Your task to perform on an android device: turn on bluetooth scan Image 0: 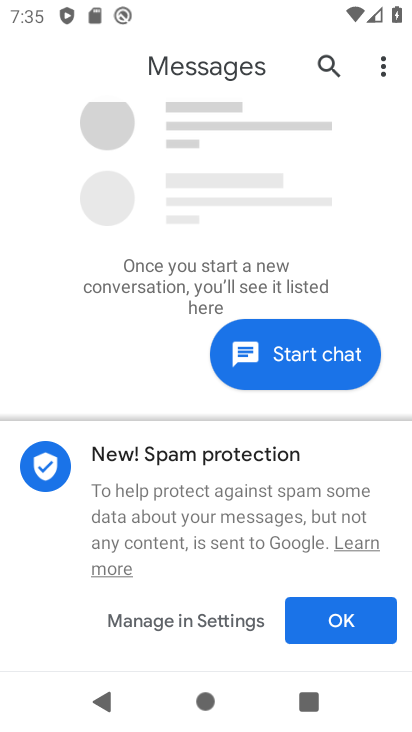
Step 0: press home button
Your task to perform on an android device: turn on bluetooth scan Image 1: 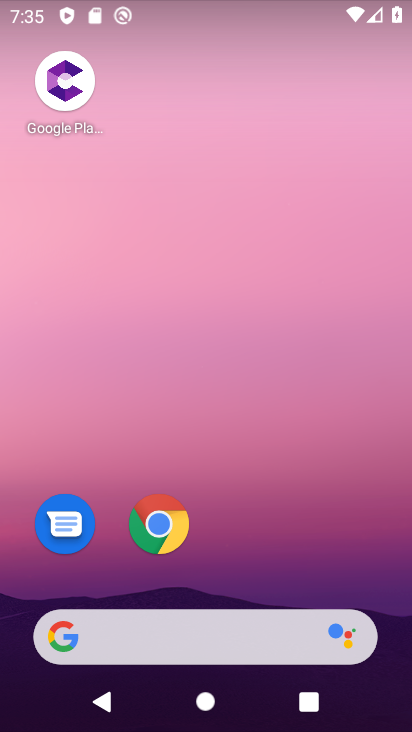
Step 1: drag from (234, 554) to (216, 13)
Your task to perform on an android device: turn on bluetooth scan Image 2: 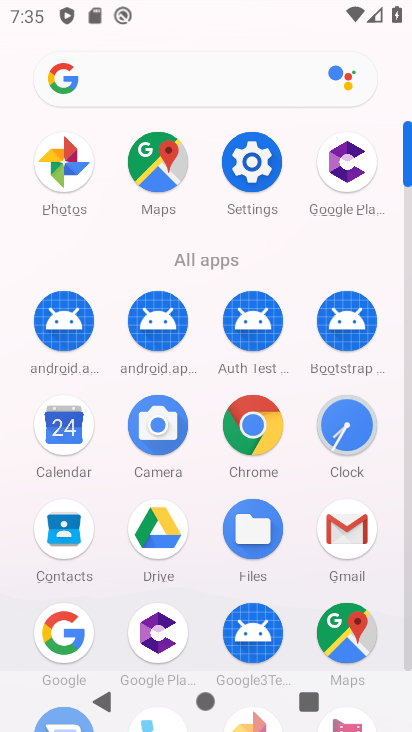
Step 2: click (258, 152)
Your task to perform on an android device: turn on bluetooth scan Image 3: 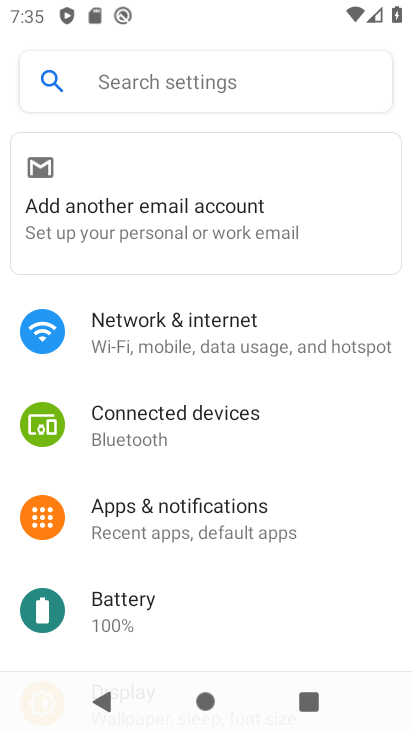
Step 3: drag from (240, 614) to (220, 50)
Your task to perform on an android device: turn on bluetooth scan Image 4: 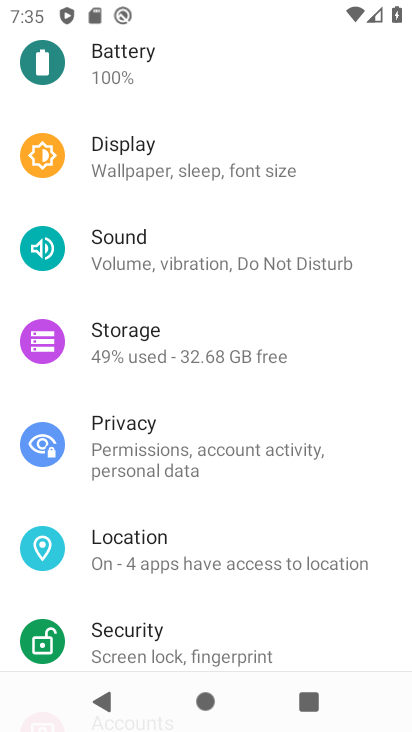
Step 4: click (223, 557)
Your task to perform on an android device: turn on bluetooth scan Image 5: 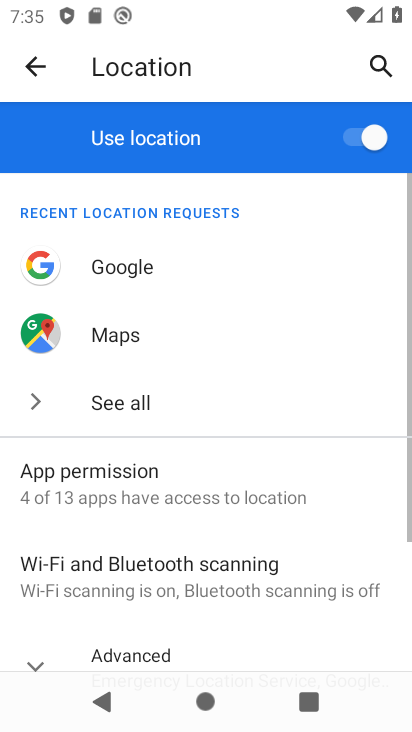
Step 5: click (197, 584)
Your task to perform on an android device: turn on bluetooth scan Image 6: 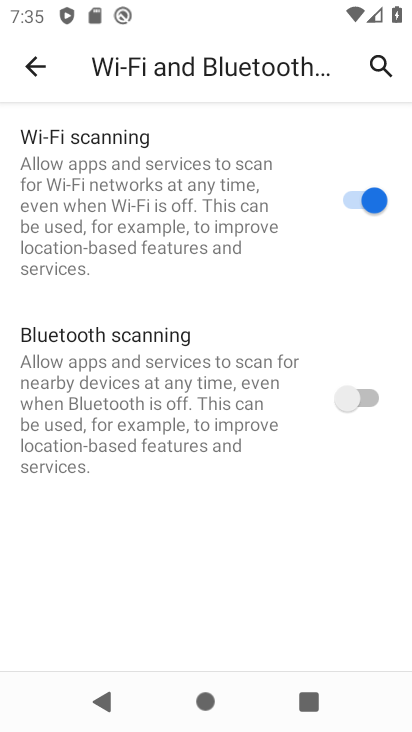
Step 6: click (368, 391)
Your task to perform on an android device: turn on bluetooth scan Image 7: 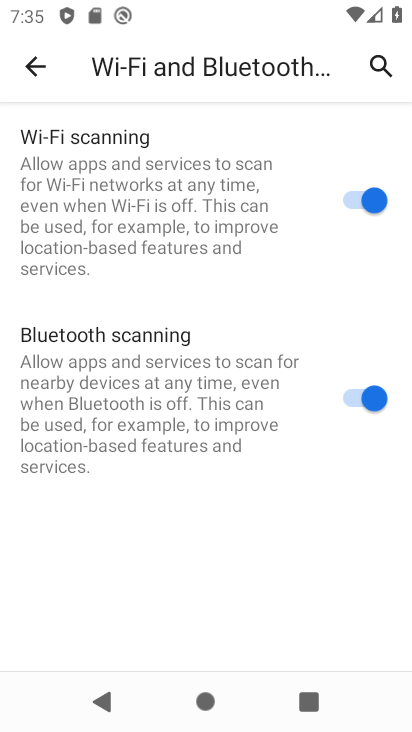
Step 7: task complete